Your task to perform on an android device: turn off sleep mode Image 0: 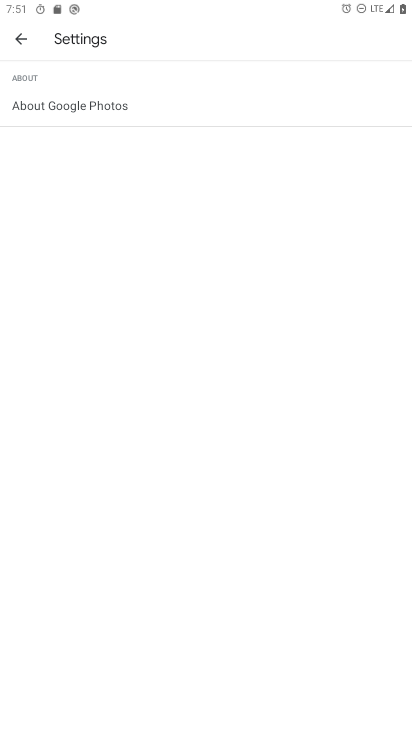
Step 0: press home button
Your task to perform on an android device: turn off sleep mode Image 1: 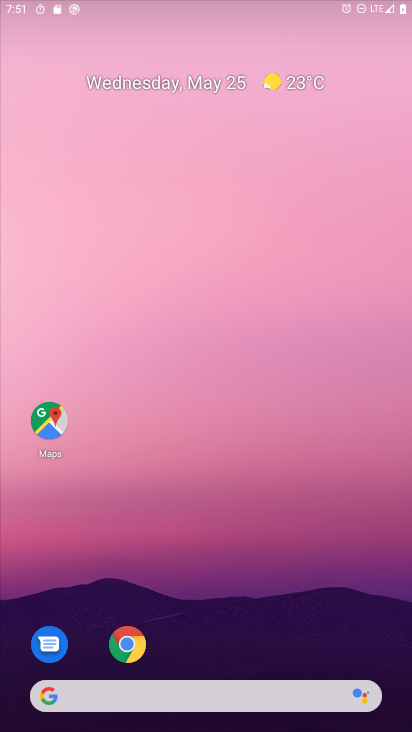
Step 1: drag from (286, 608) to (301, 58)
Your task to perform on an android device: turn off sleep mode Image 2: 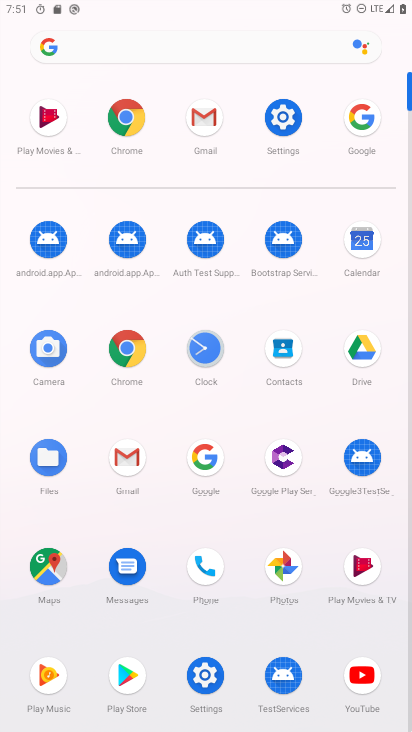
Step 2: click (289, 123)
Your task to perform on an android device: turn off sleep mode Image 3: 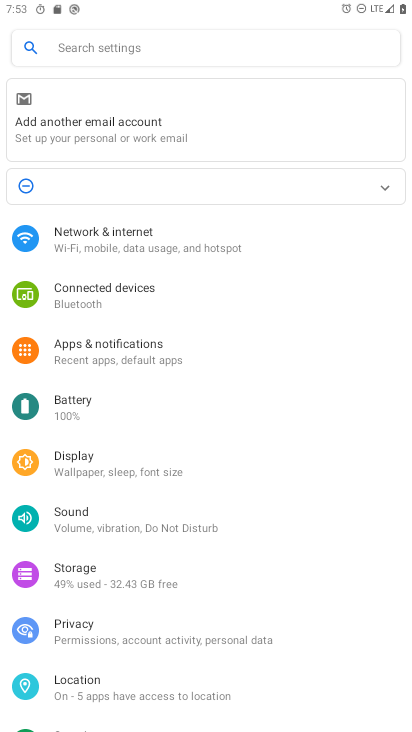
Step 3: task complete